Your task to perform on an android device: What's the weather? Image 0: 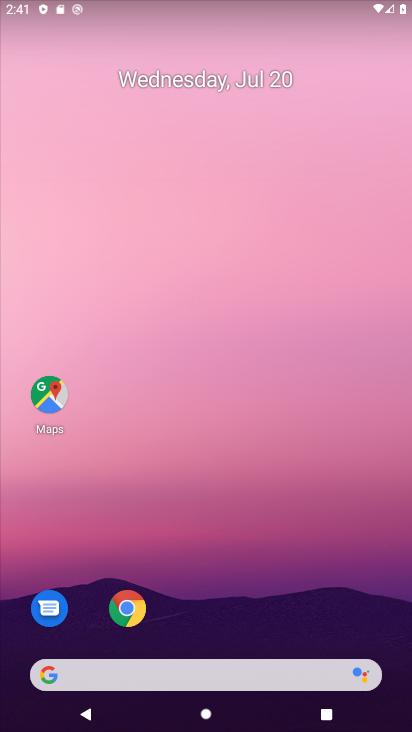
Step 0: drag from (270, 605) to (245, 56)
Your task to perform on an android device: What's the weather? Image 1: 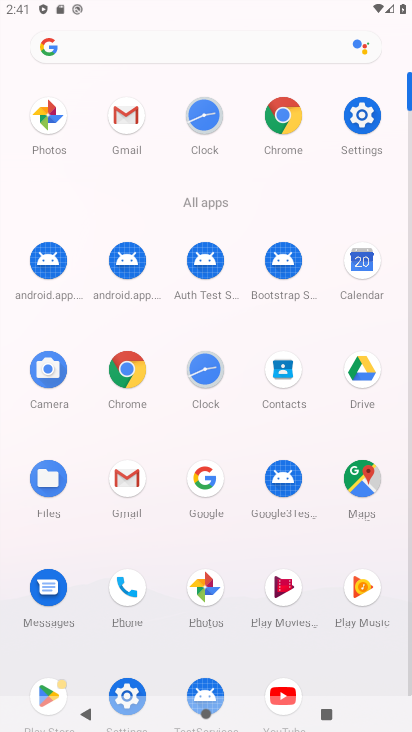
Step 1: click (285, 110)
Your task to perform on an android device: What's the weather? Image 2: 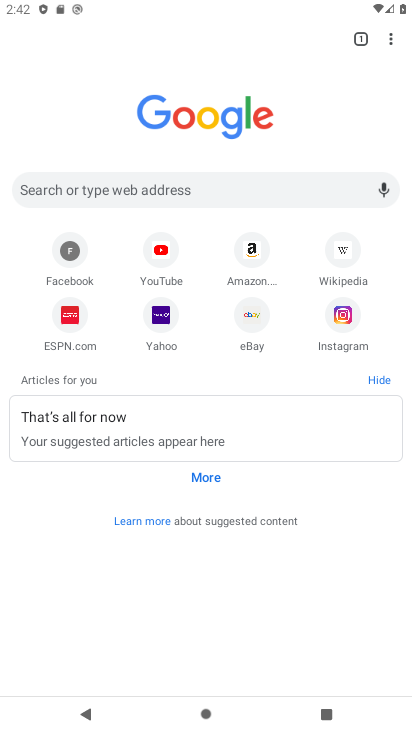
Step 2: click (247, 190)
Your task to perform on an android device: What's the weather? Image 3: 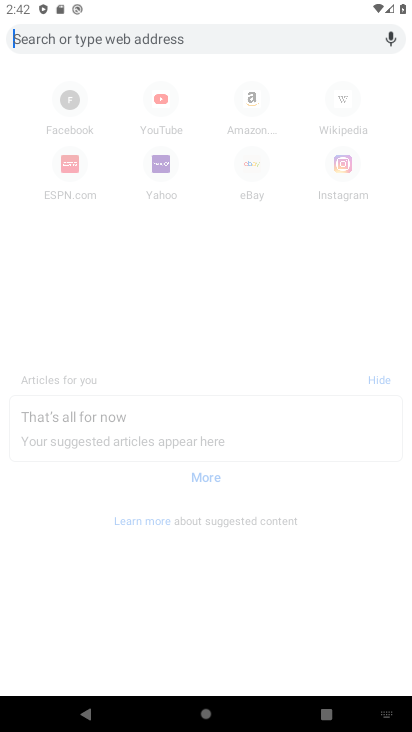
Step 3: type "weather"
Your task to perform on an android device: What's the weather? Image 4: 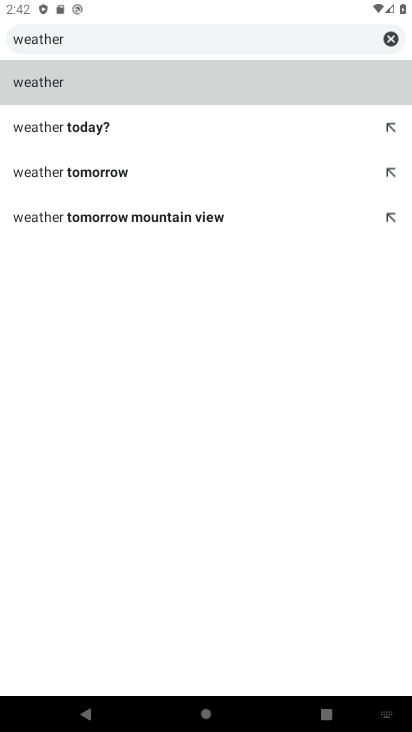
Step 4: click (55, 87)
Your task to perform on an android device: What's the weather? Image 5: 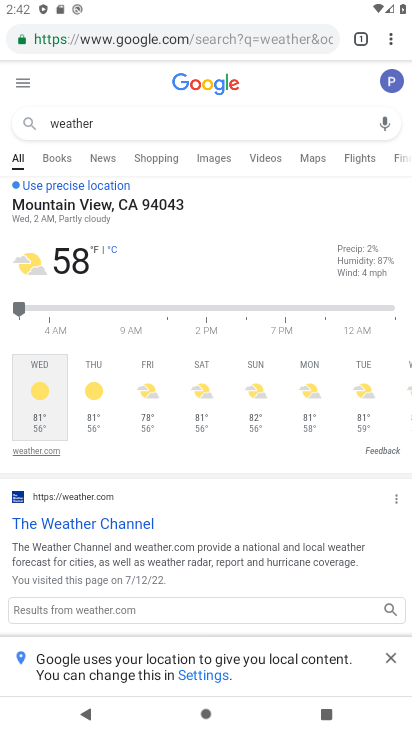
Step 5: task complete